Your task to perform on an android device: turn on sleep mode Image 0: 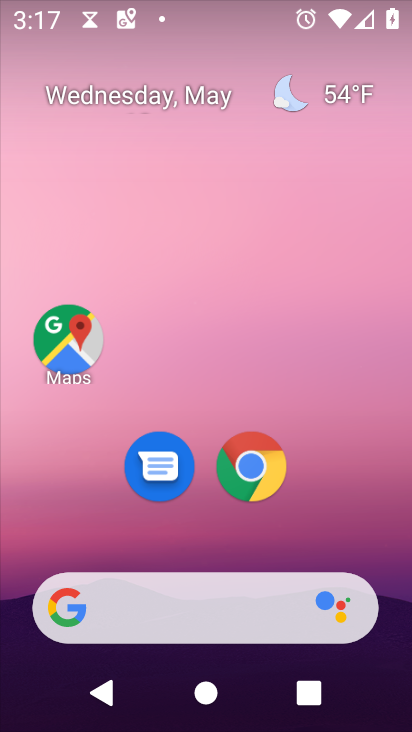
Step 0: drag from (392, 523) to (329, 28)
Your task to perform on an android device: turn on sleep mode Image 1: 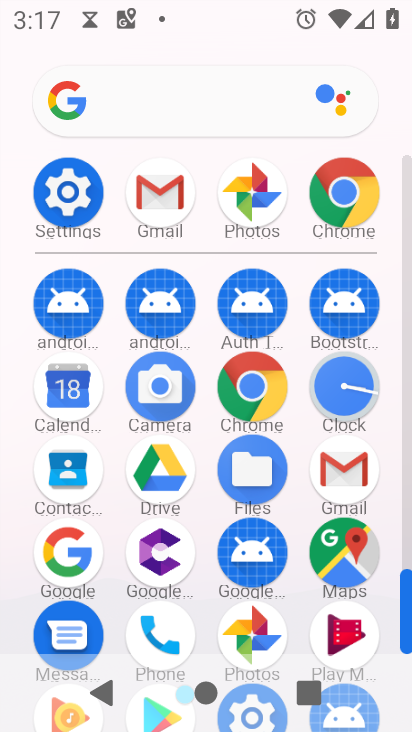
Step 1: click (77, 186)
Your task to perform on an android device: turn on sleep mode Image 2: 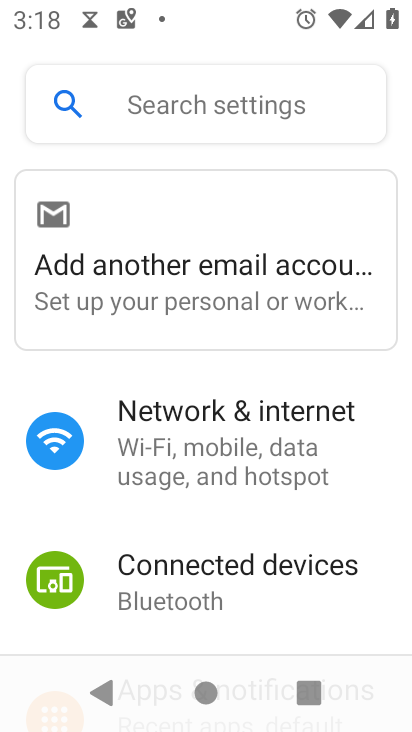
Step 2: drag from (274, 527) to (229, 180)
Your task to perform on an android device: turn on sleep mode Image 3: 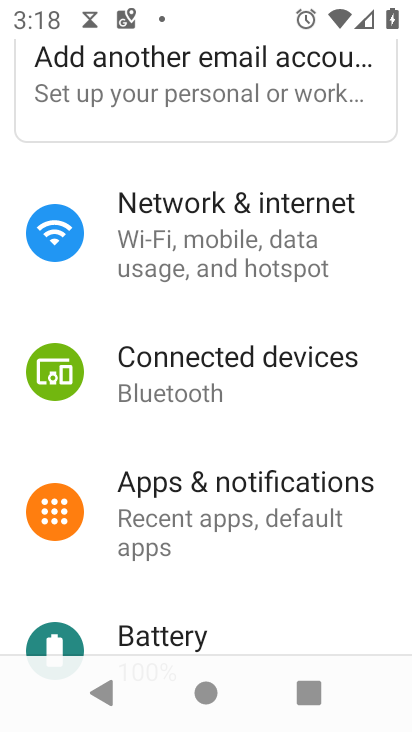
Step 3: drag from (309, 569) to (250, 175)
Your task to perform on an android device: turn on sleep mode Image 4: 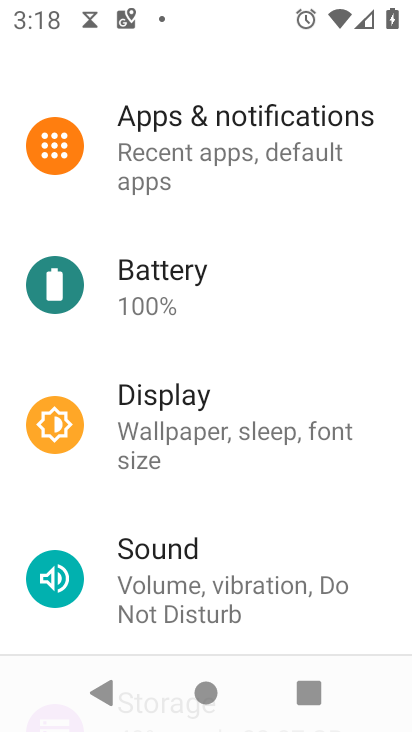
Step 4: click (241, 439)
Your task to perform on an android device: turn on sleep mode Image 5: 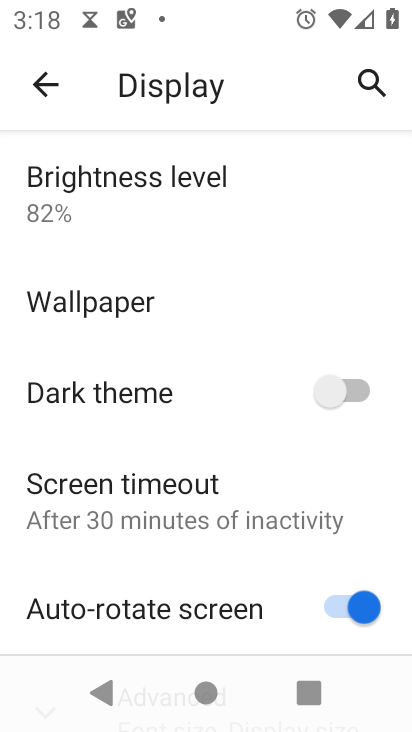
Step 5: drag from (258, 526) to (186, 122)
Your task to perform on an android device: turn on sleep mode Image 6: 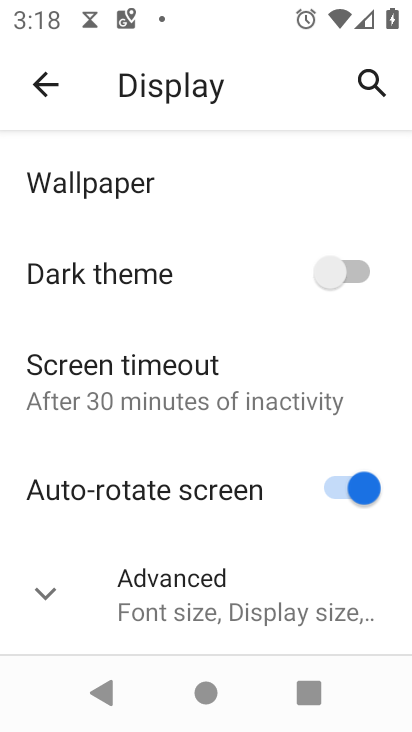
Step 6: click (216, 576)
Your task to perform on an android device: turn on sleep mode Image 7: 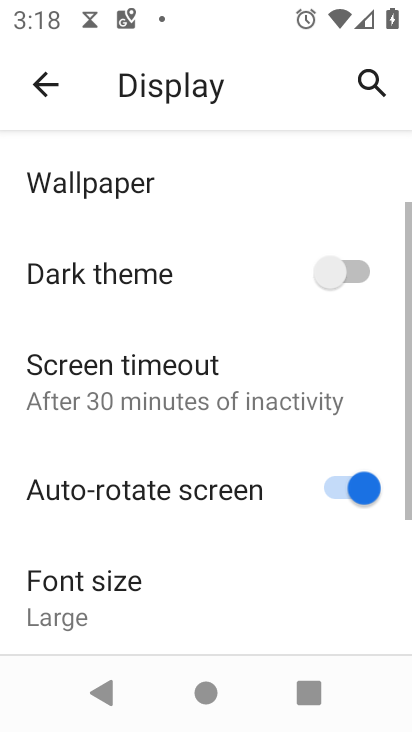
Step 7: task complete